Your task to perform on an android device: empty trash in google photos Image 0: 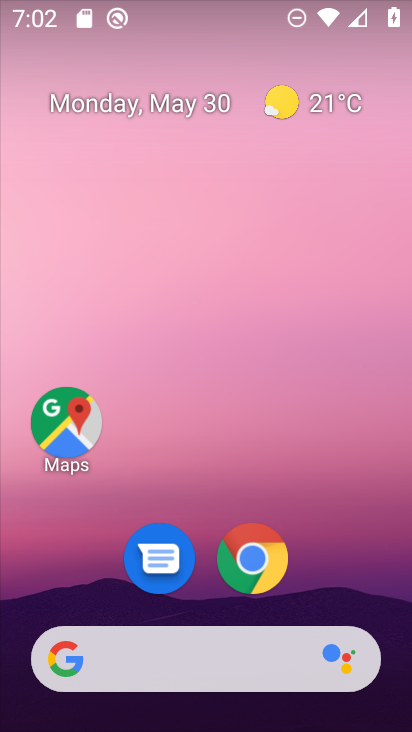
Step 0: drag from (310, 542) to (241, 86)
Your task to perform on an android device: empty trash in google photos Image 1: 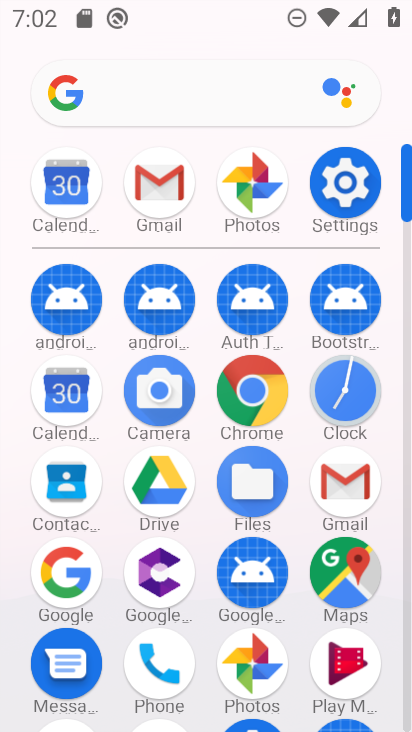
Step 1: click (259, 174)
Your task to perform on an android device: empty trash in google photos Image 2: 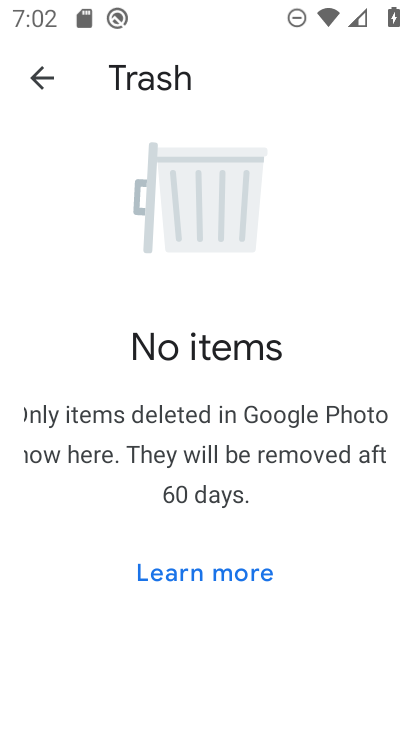
Step 2: task complete